Your task to perform on an android device: Add asus rog to the cart on costco Image 0: 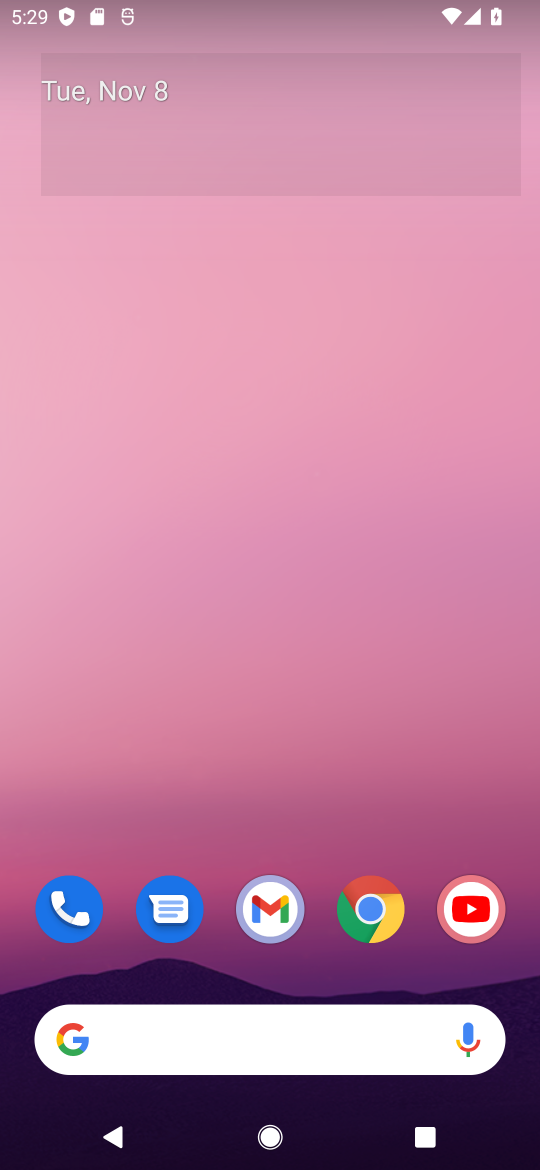
Step 0: click (371, 911)
Your task to perform on an android device: Add asus rog to the cart on costco Image 1: 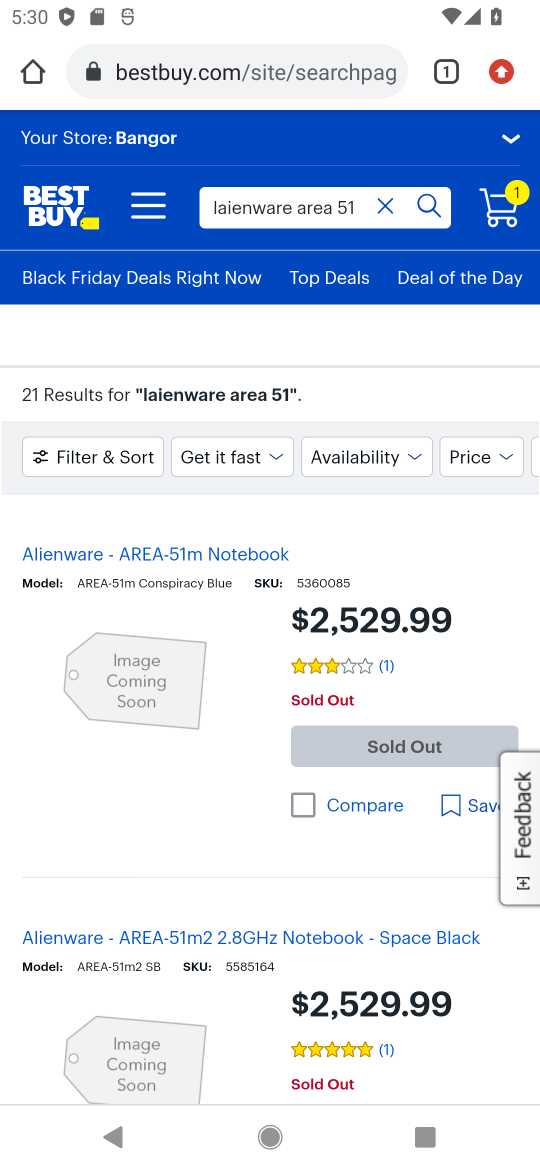
Step 1: click (202, 73)
Your task to perform on an android device: Add asus rog to the cart on costco Image 2: 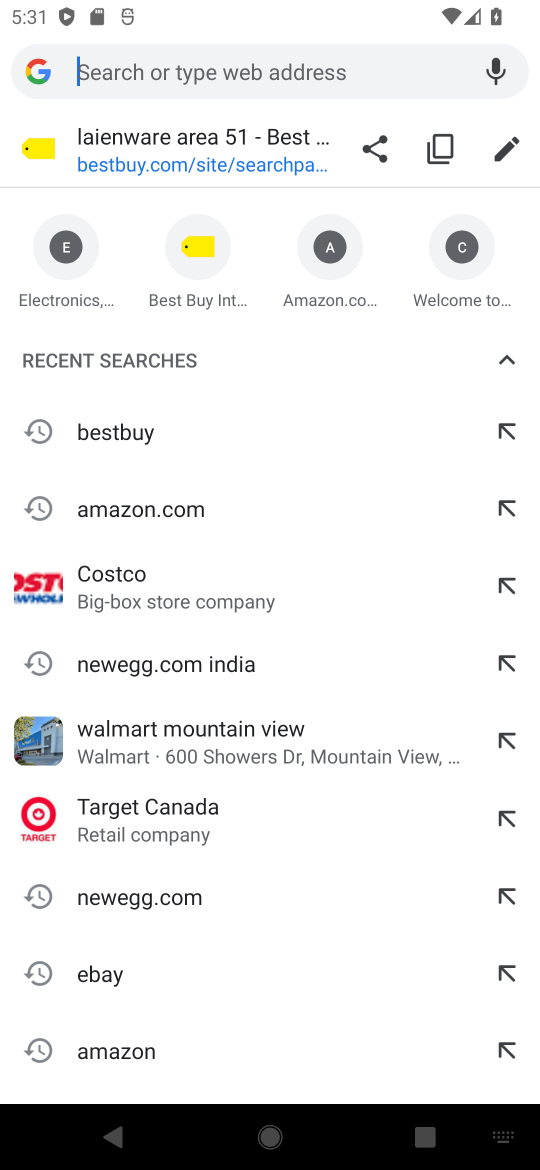
Step 2: click (118, 573)
Your task to perform on an android device: Add asus rog to the cart on costco Image 3: 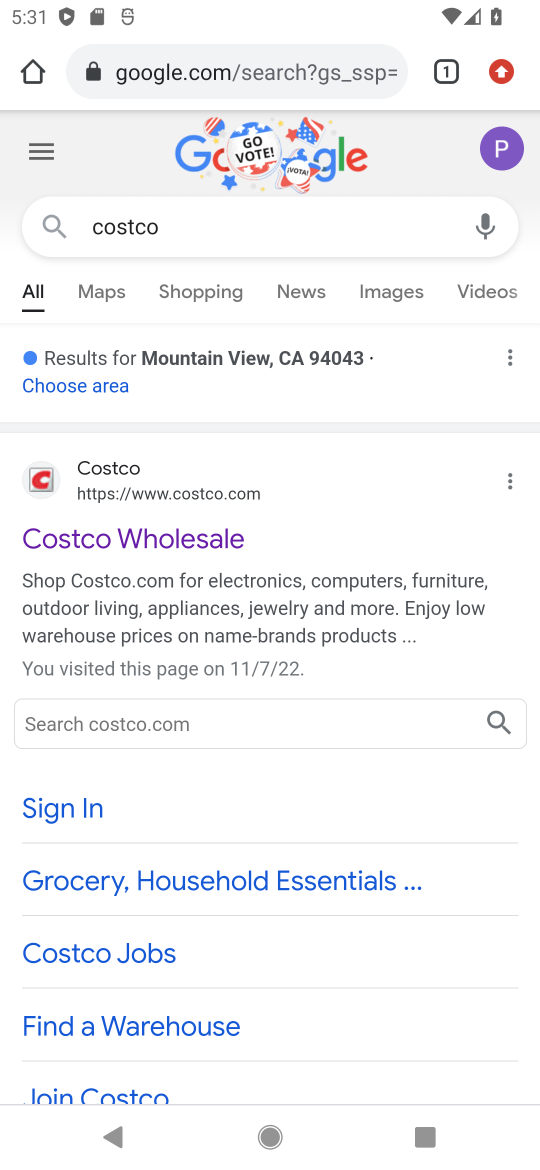
Step 3: click (114, 535)
Your task to perform on an android device: Add asus rog to the cart on costco Image 4: 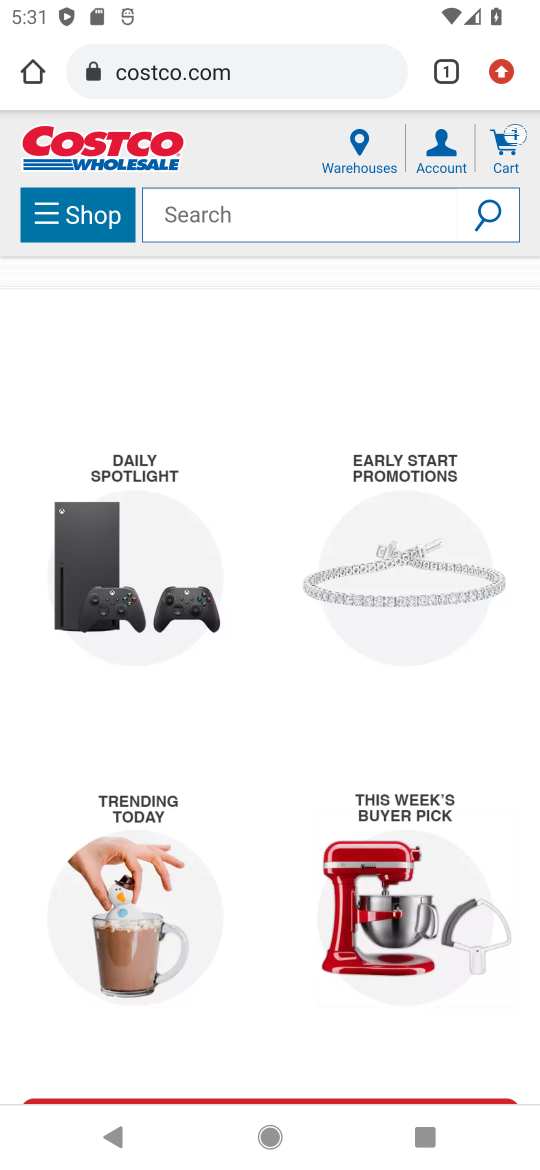
Step 4: click (242, 207)
Your task to perform on an android device: Add asus rog to the cart on costco Image 5: 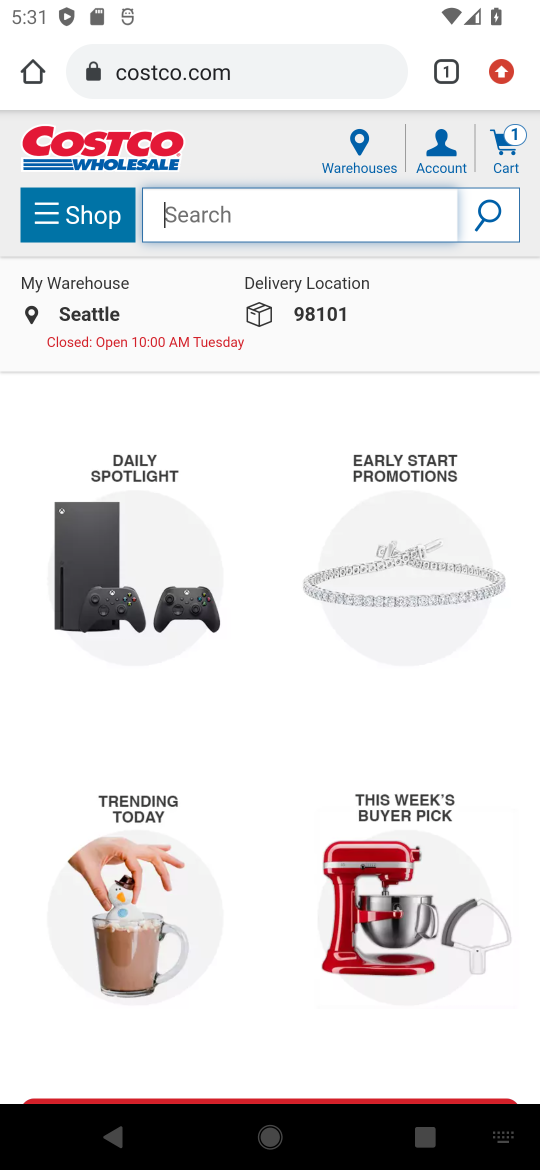
Step 5: type " asus rog"
Your task to perform on an android device: Add asus rog to the cart on costco Image 6: 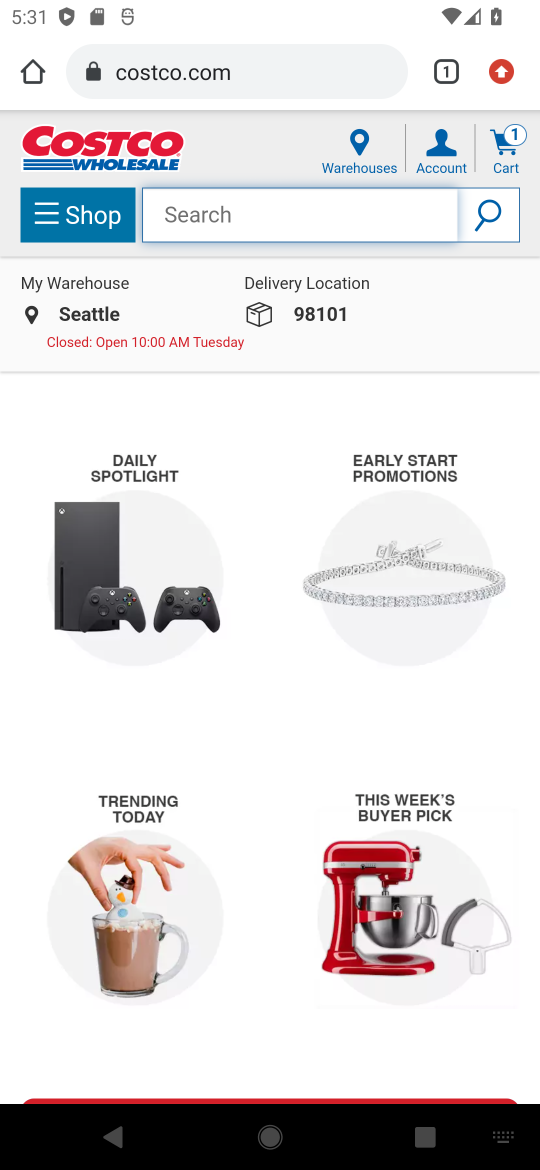
Step 6: press enter
Your task to perform on an android device: Add asus rog to the cart on costco Image 7: 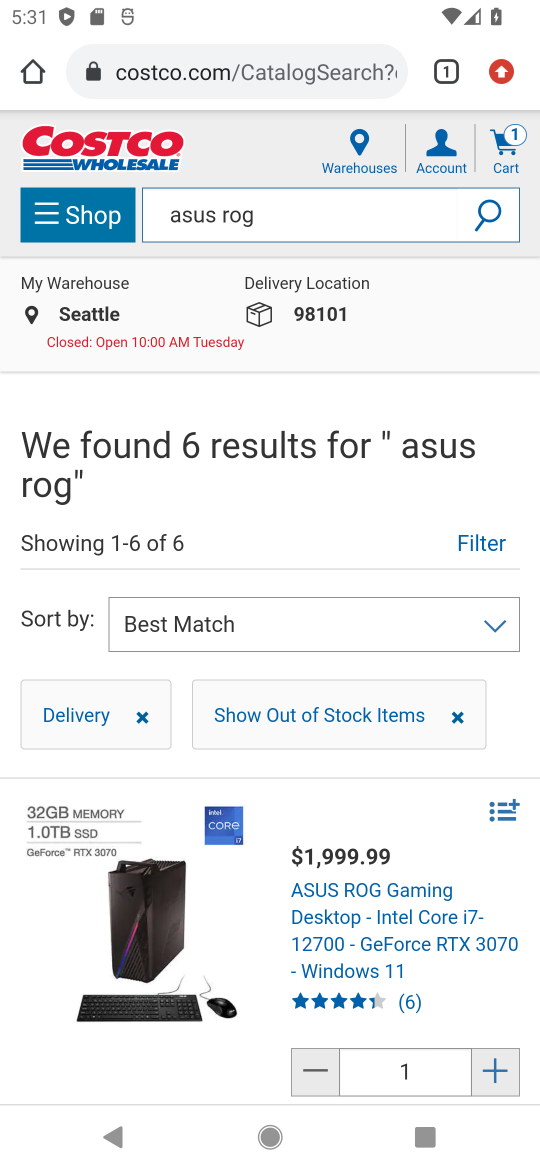
Step 7: drag from (364, 886) to (403, 400)
Your task to perform on an android device: Add asus rog to the cart on costco Image 8: 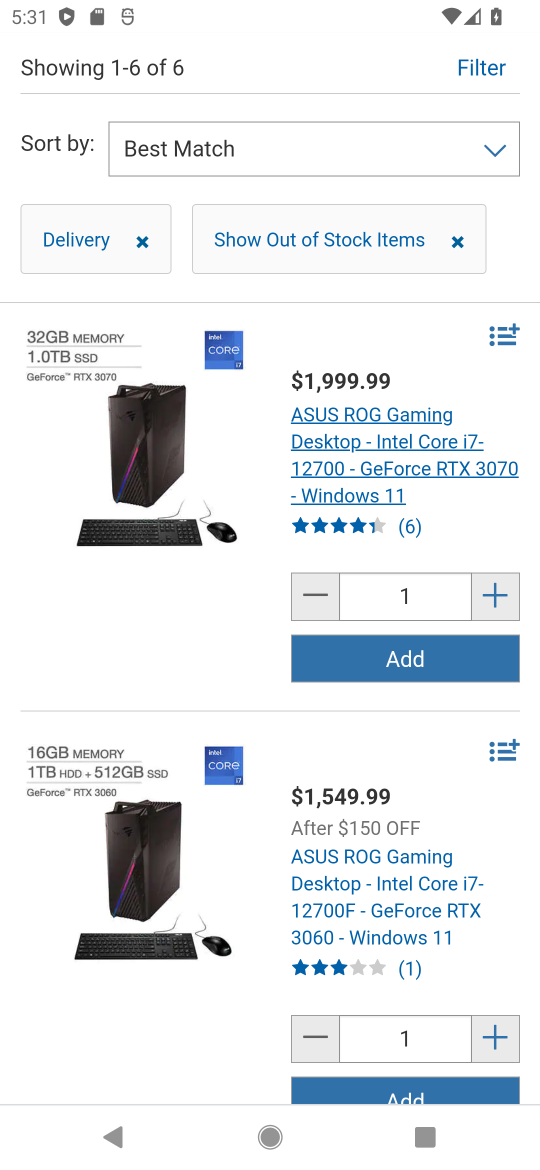
Step 8: click (420, 656)
Your task to perform on an android device: Add asus rog to the cart on costco Image 9: 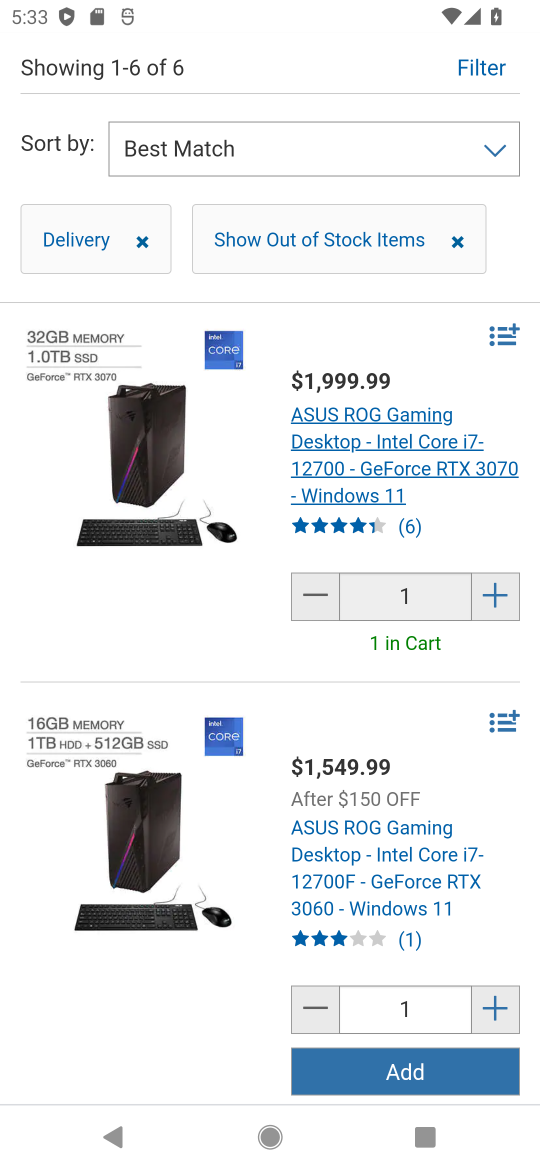
Step 9: task complete